Your task to perform on an android device: Go to location settings Image 0: 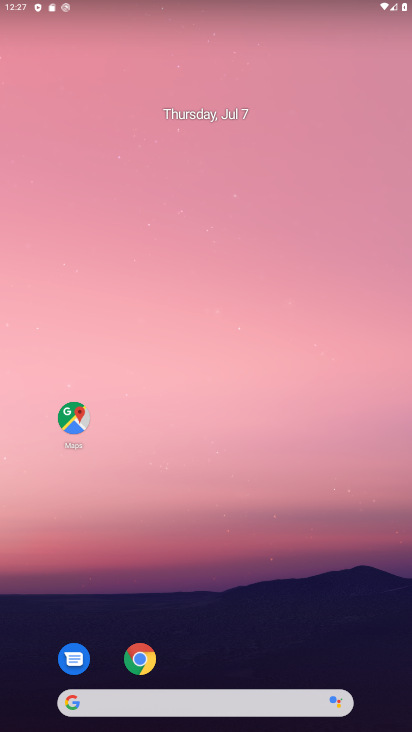
Step 0: drag from (231, 586) to (168, 144)
Your task to perform on an android device: Go to location settings Image 1: 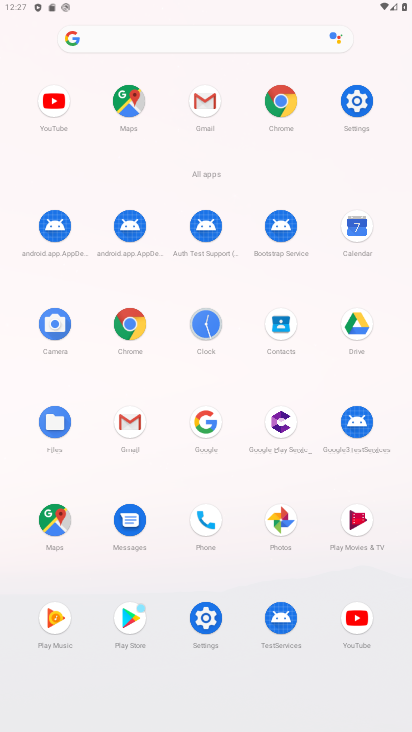
Step 1: click (351, 104)
Your task to perform on an android device: Go to location settings Image 2: 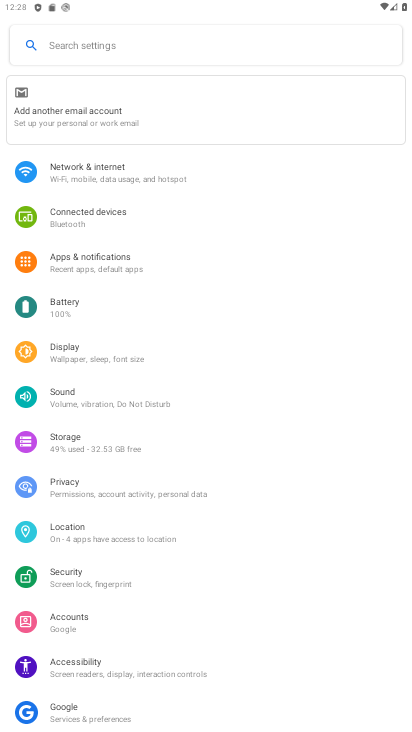
Step 2: click (62, 527)
Your task to perform on an android device: Go to location settings Image 3: 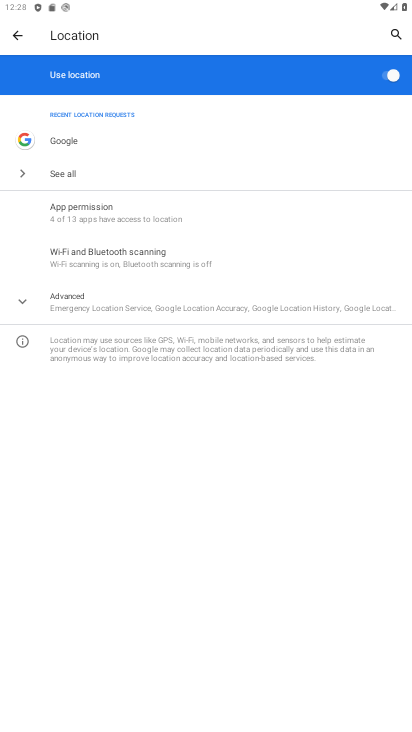
Step 3: click (392, 72)
Your task to perform on an android device: Go to location settings Image 4: 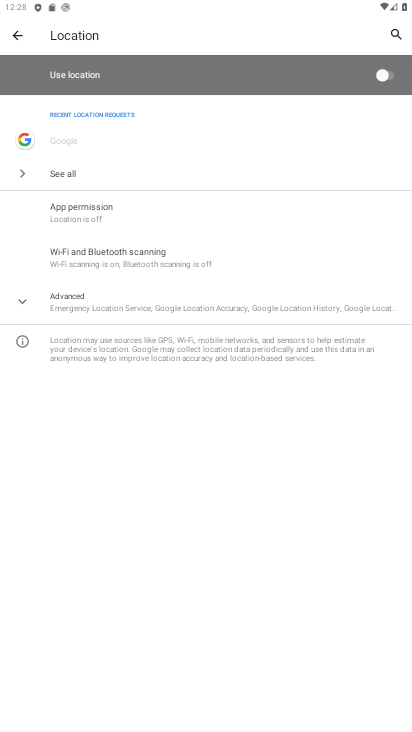
Step 4: task complete